Your task to perform on an android device: turn on the 12-hour format for clock Image 0: 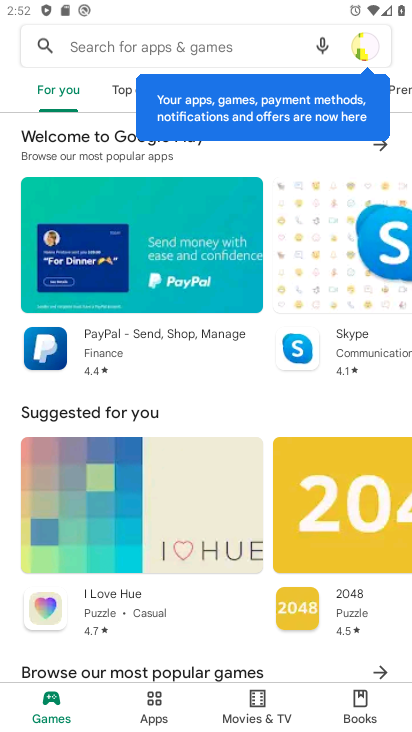
Step 0: press home button
Your task to perform on an android device: turn on the 12-hour format for clock Image 1: 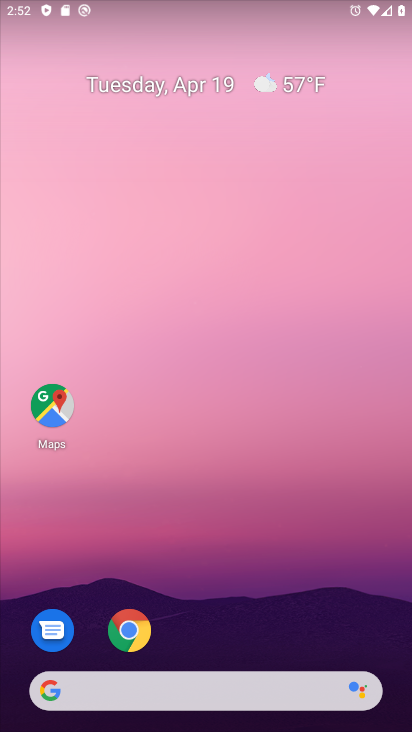
Step 1: drag from (251, 586) to (222, 30)
Your task to perform on an android device: turn on the 12-hour format for clock Image 2: 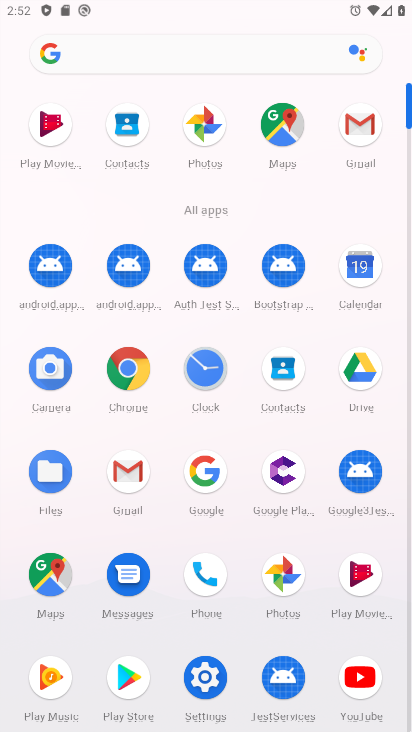
Step 2: click (204, 364)
Your task to perform on an android device: turn on the 12-hour format for clock Image 3: 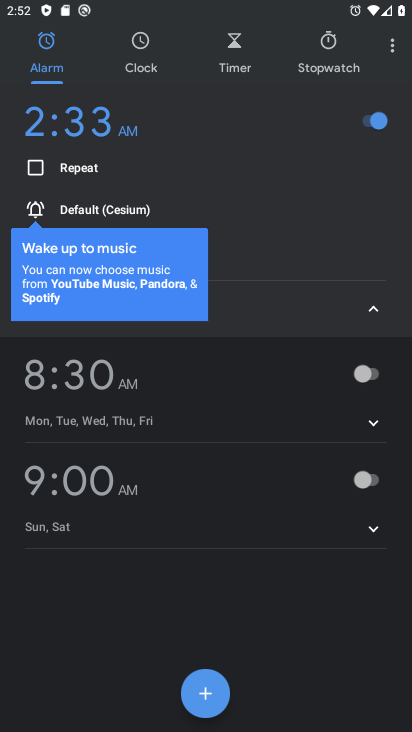
Step 3: click (402, 49)
Your task to perform on an android device: turn on the 12-hour format for clock Image 4: 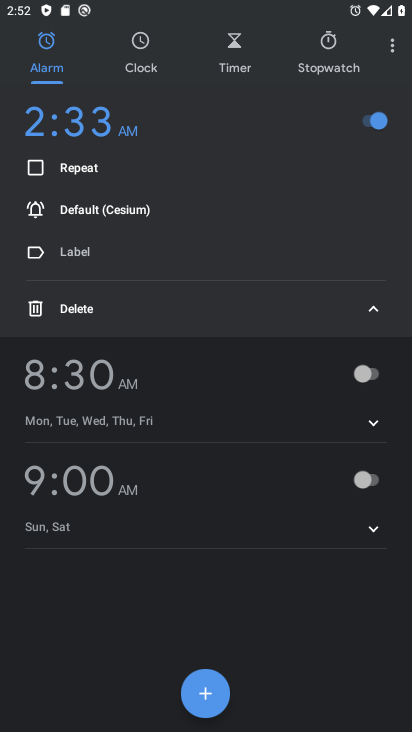
Step 4: click (388, 51)
Your task to perform on an android device: turn on the 12-hour format for clock Image 5: 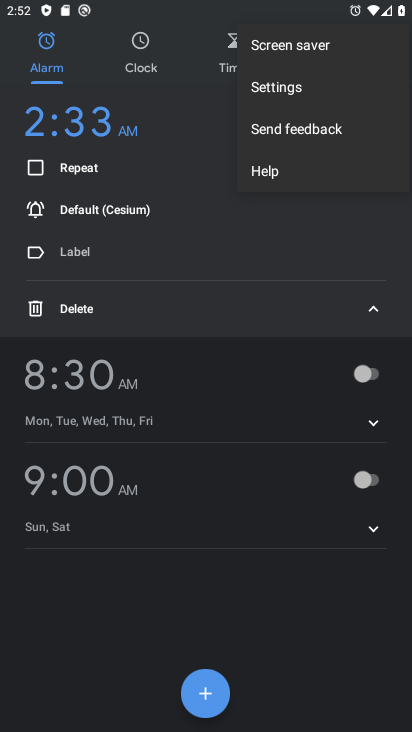
Step 5: click (288, 84)
Your task to perform on an android device: turn on the 12-hour format for clock Image 6: 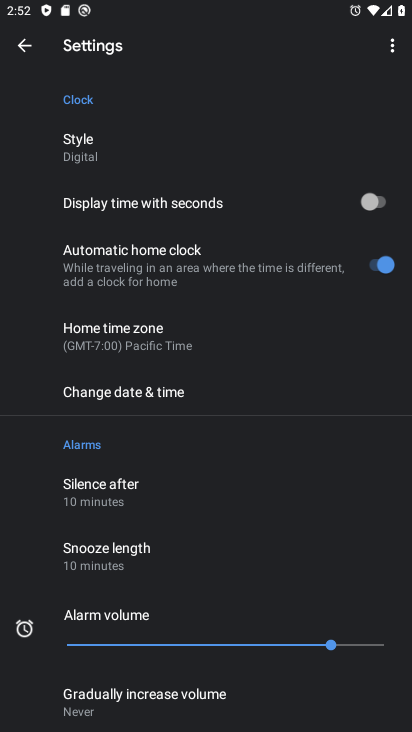
Step 6: click (154, 390)
Your task to perform on an android device: turn on the 12-hour format for clock Image 7: 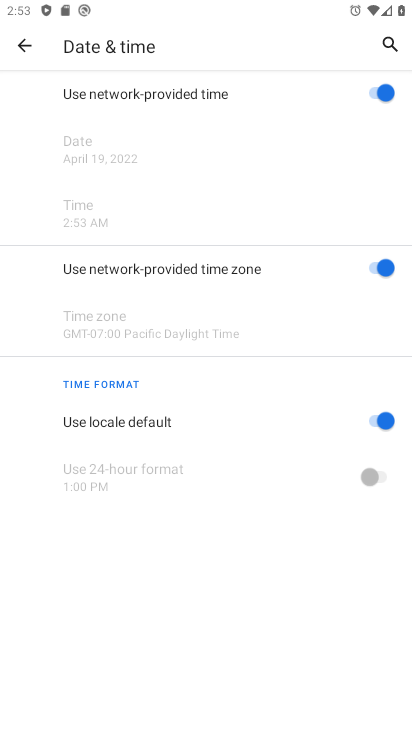
Step 7: task complete